Your task to perform on an android device: Open the clock app Image 0: 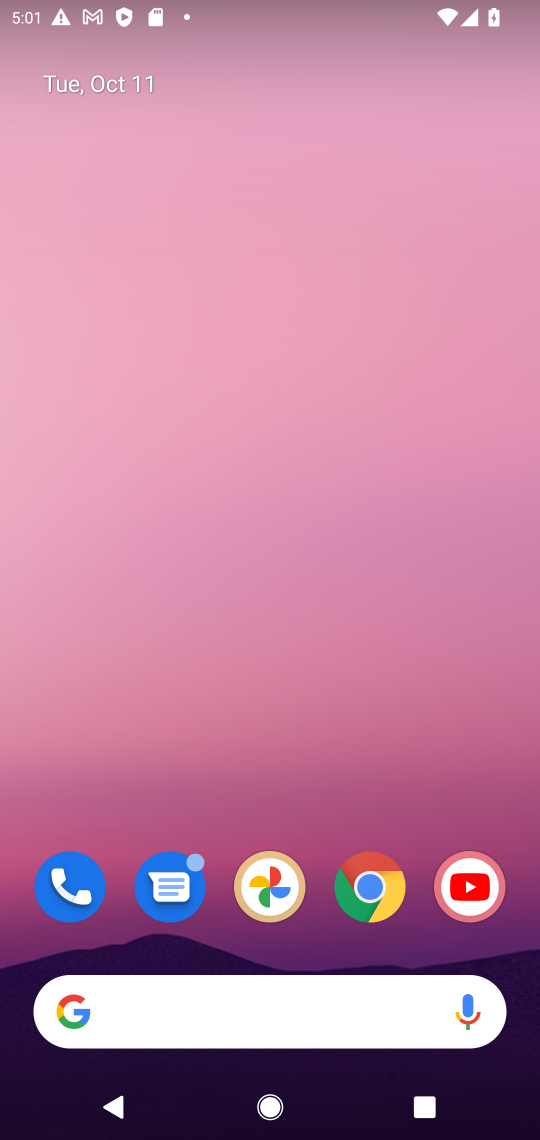
Step 0: drag from (277, 824) to (388, 1)
Your task to perform on an android device: Open the clock app Image 1: 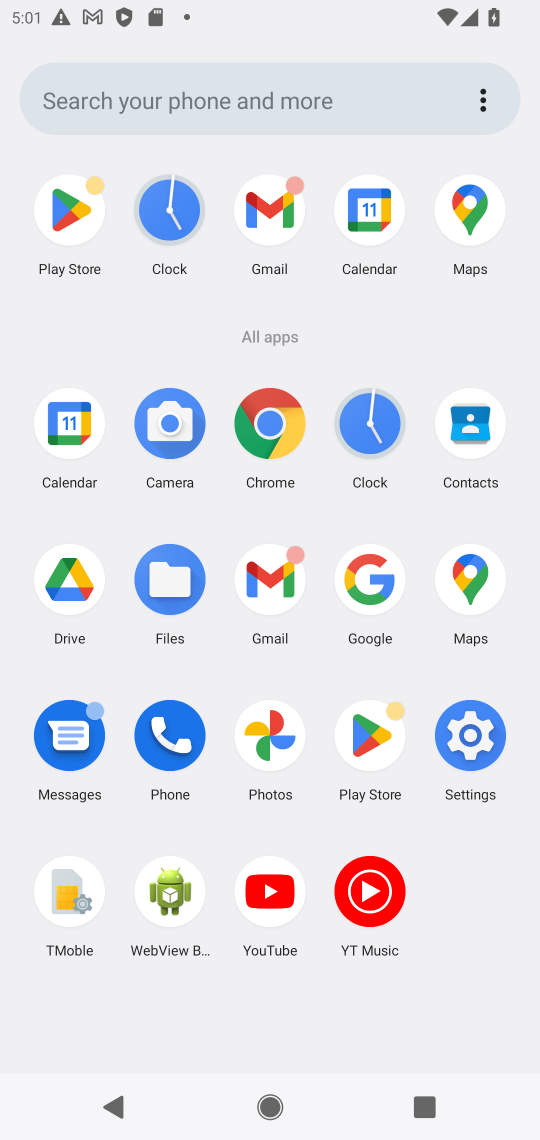
Step 1: click (369, 423)
Your task to perform on an android device: Open the clock app Image 2: 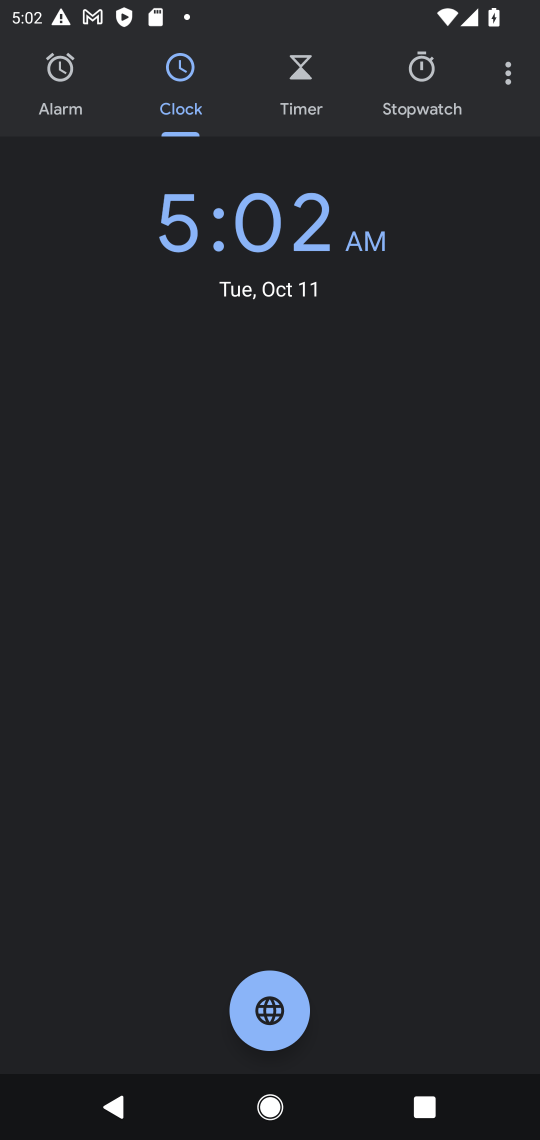
Step 2: task complete